Your task to perform on an android device: change timer sound Image 0: 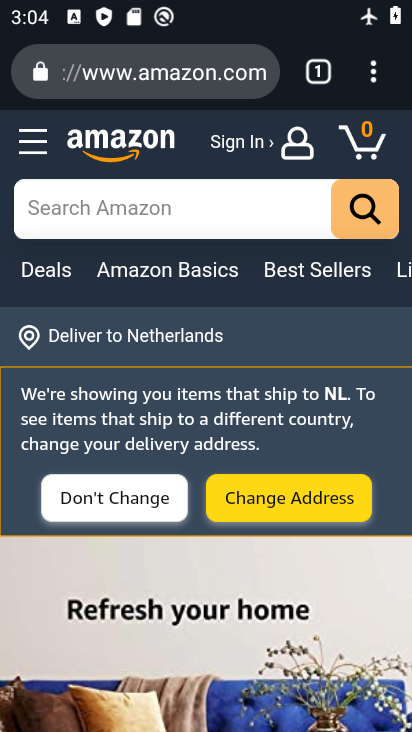
Step 0: press home button
Your task to perform on an android device: change timer sound Image 1: 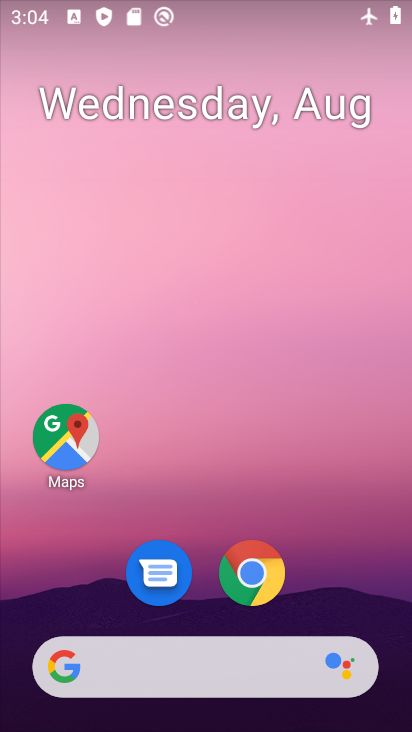
Step 1: drag from (308, 590) to (327, 2)
Your task to perform on an android device: change timer sound Image 2: 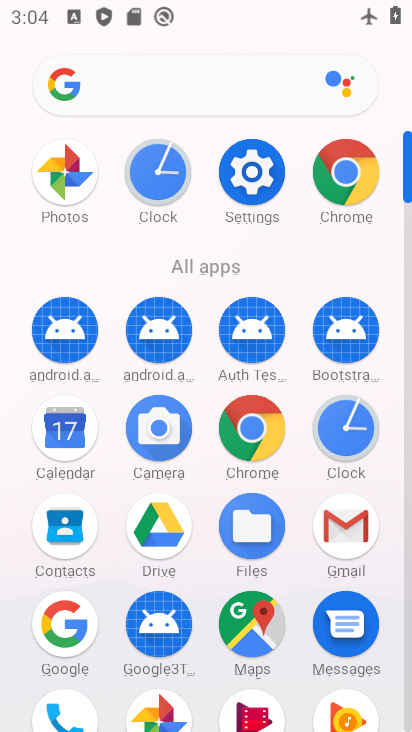
Step 2: click (154, 163)
Your task to perform on an android device: change timer sound Image 3: 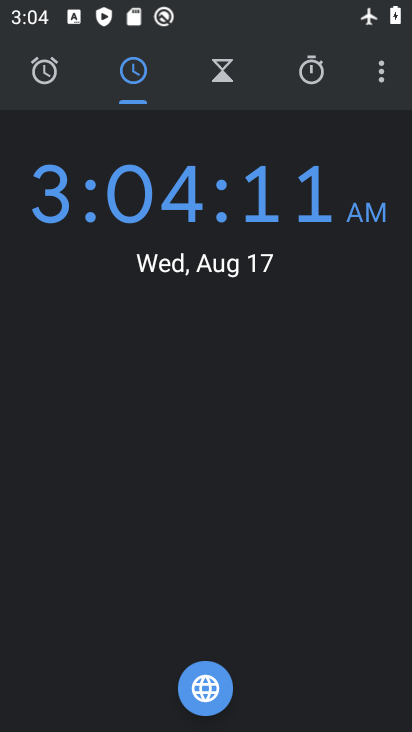
Step 3: click (383, 75)
Your task to perform on an android device: change timer sound Image 4: 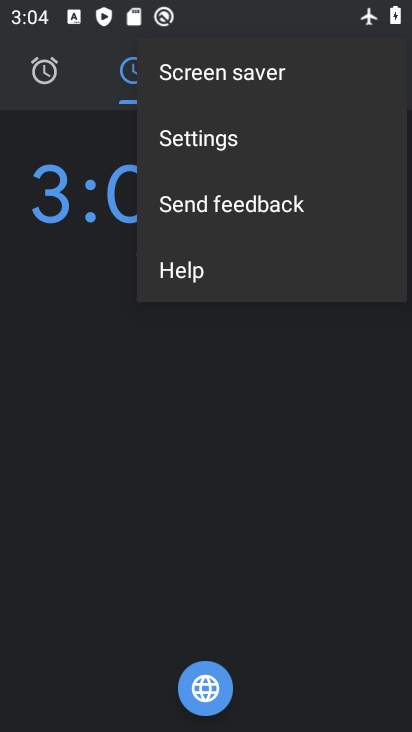
Step 4: click (263, 150)
Your task to perform on an android device: change timer sound Image 5: 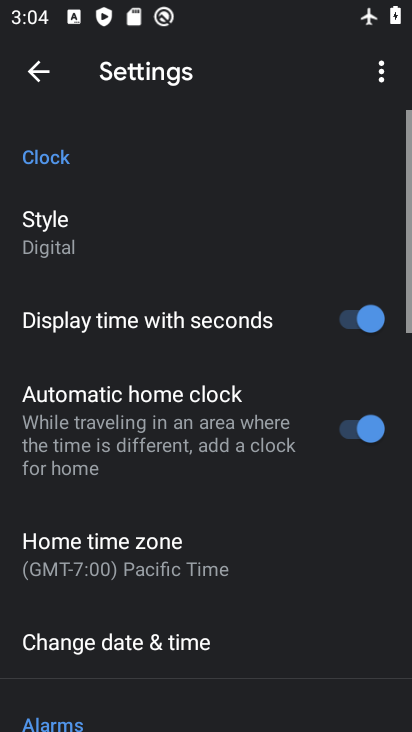
Step 5: drag from (167, 503) to (189, 0)
Your task to perform on an android device: change timer sound Image 6: 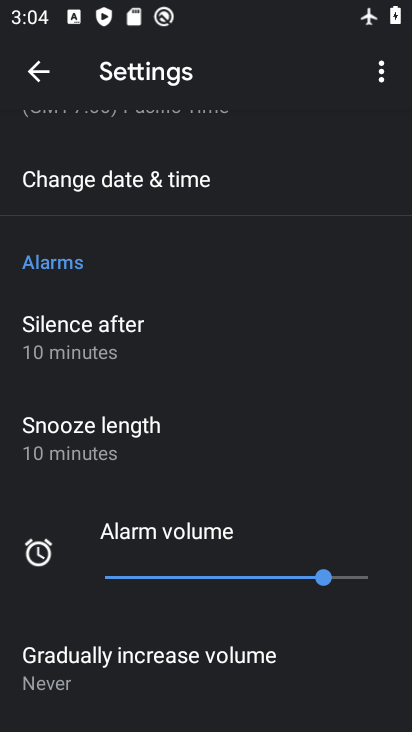
Step 6: drag from (246, 392) to (320, 1)
Your task to perform on an android device: change timer sound Image 7: 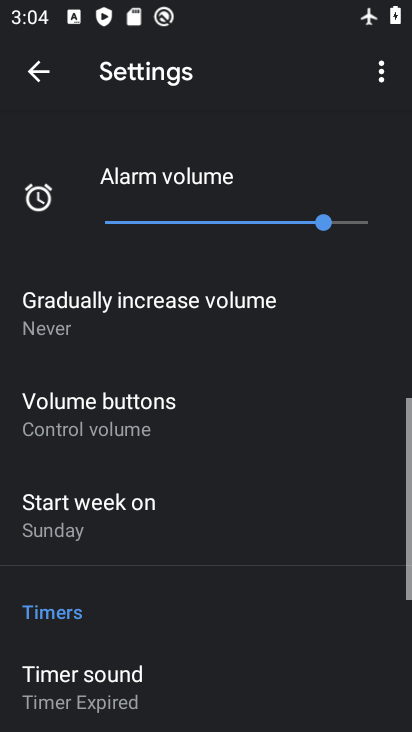
Step 7: drag from (271, 302) to (308, 56)
Your task to perform on an android device: change timer sound Image 8: 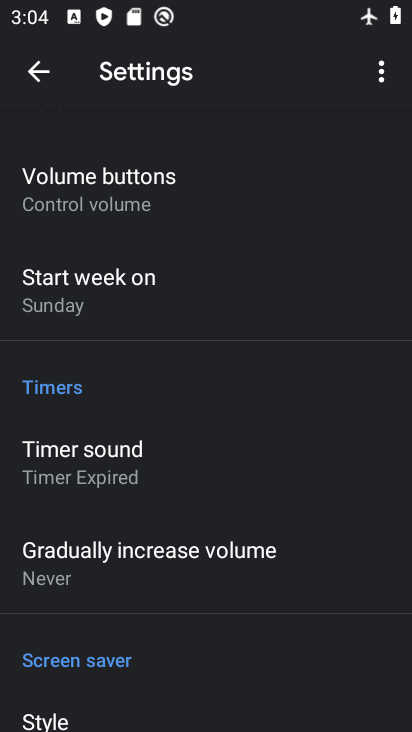
Step 8: click (123, 466)
Your task to perform on an android device: change timer sound Image 9: 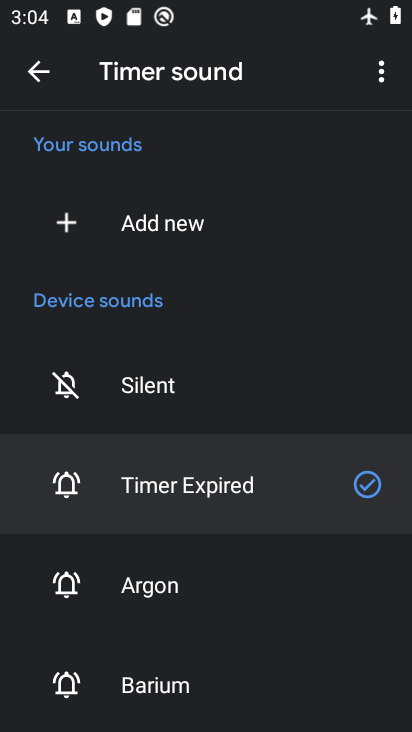
Step 9: click (131, 580)
Your task to perform on an android device: change timer sound Image 10: 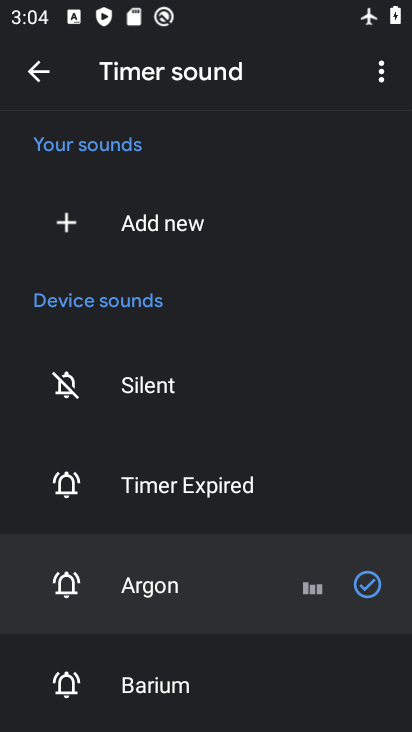
Step 10: task complete